Your task to perform on an android device: When is my next meeting? Image 0: 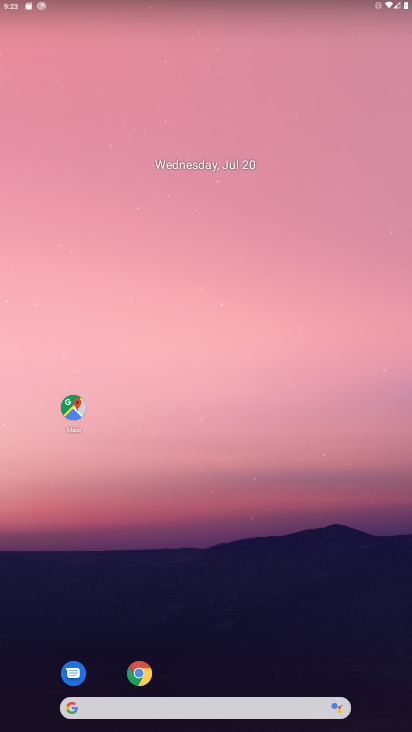
Step 0: drag from (195, 669) to (301, 51)
Your task to perform on an android device: When is my next meeting? Image 1: 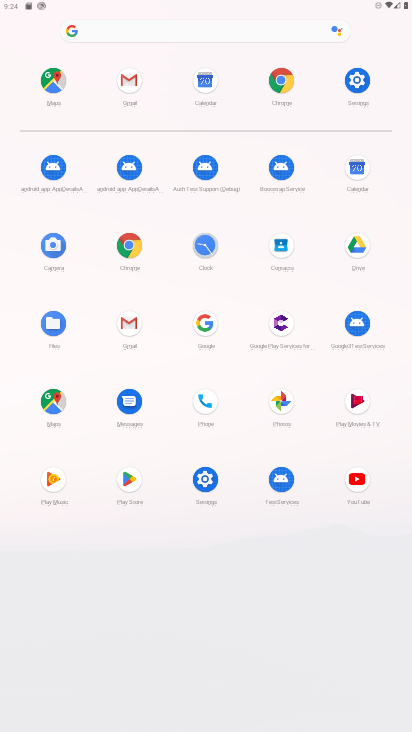
Step 1: click (347, 166)
Your task to perform on an android device: When is my next meeting? Image 2: 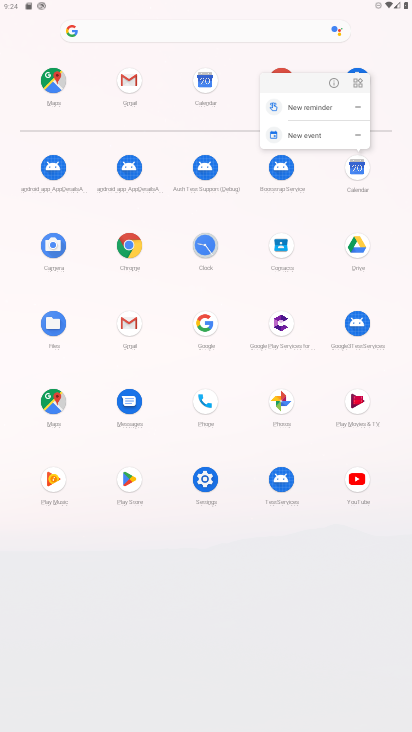
Step 2: click (332, 83)
Your task to perform on an android device: When is my next meeting? Image 3: 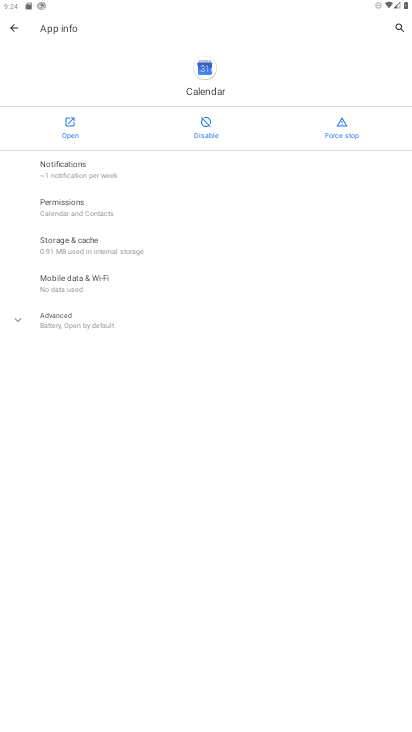
Step 3: click (63, 126)
Your task to perform on an android device: When is my next meeting? Image 4: 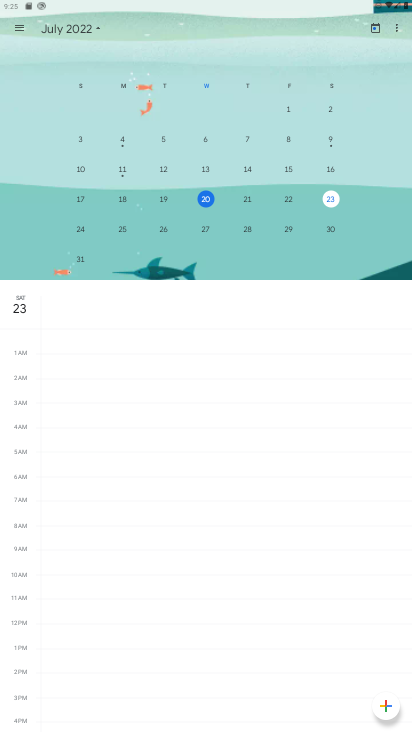
Step 4: click (335, 199)
Your task to perform on an android device: When is my next meeting? Image 5: 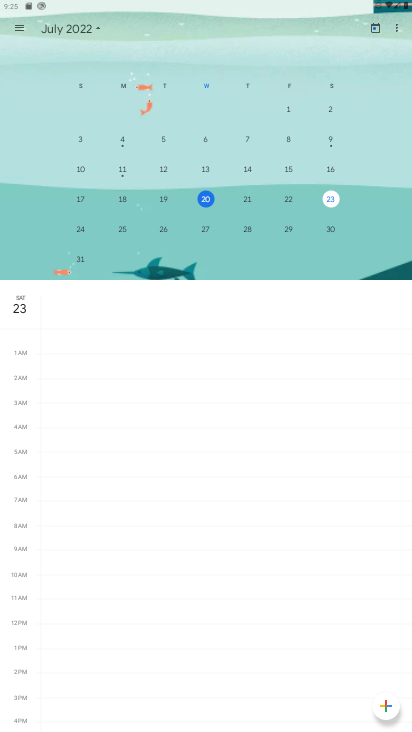
Step 5: click (204, 201)
Your task to perform on an android device: When is my next meeting? Image 6: 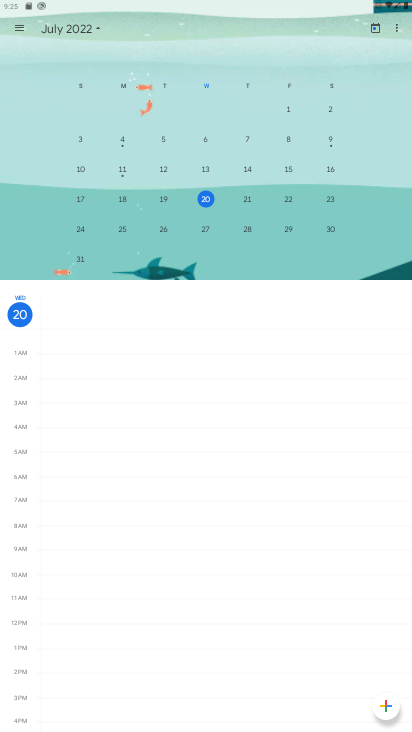
Step 6: task complete